Your task to perform on an android device: Empty the shopping cart on amazon. Add "logitech g pro" to the cart on amazon, then select checkout. Image 0: 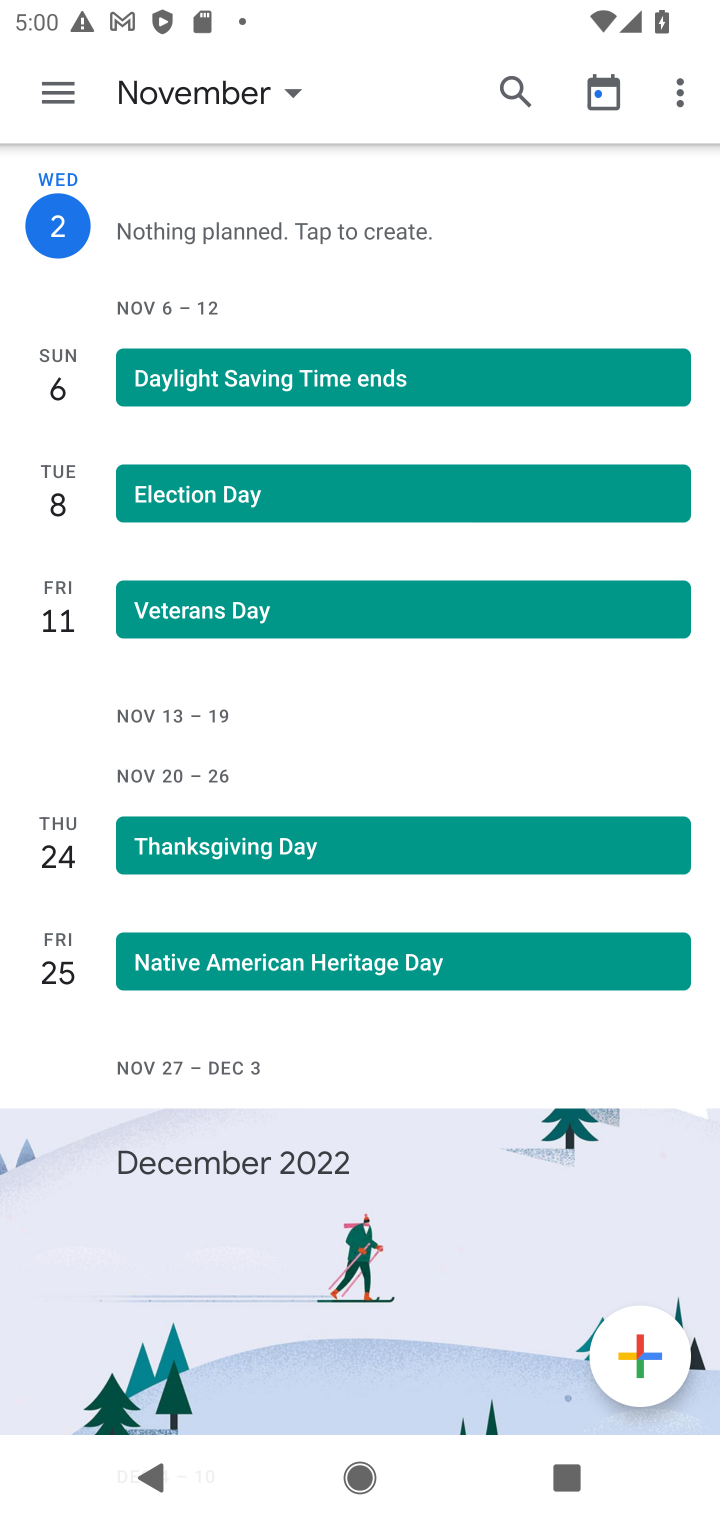
Step 0: press home button
Your task to perform on an android device: Empty the shopping cart on amazon. Add "logitech g pro" to the cart on amazon, then select checkout. Image 1: 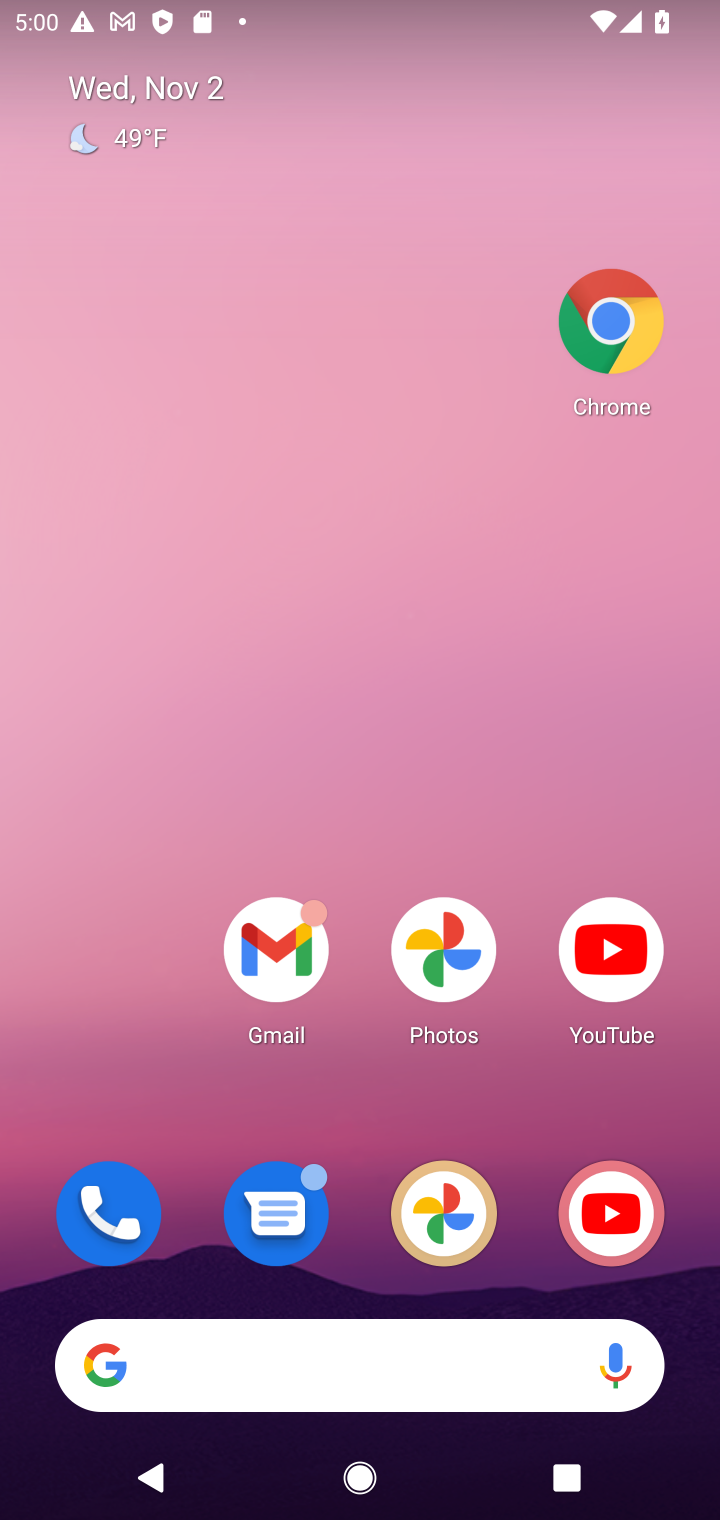
Step 1: drag from (502, 691) to (570, 366)
Your task to perform on an android device: Empty the shopping cart on amazon. Add "logitech g pro" to the cart on amazon, then select checkout. Image 2: 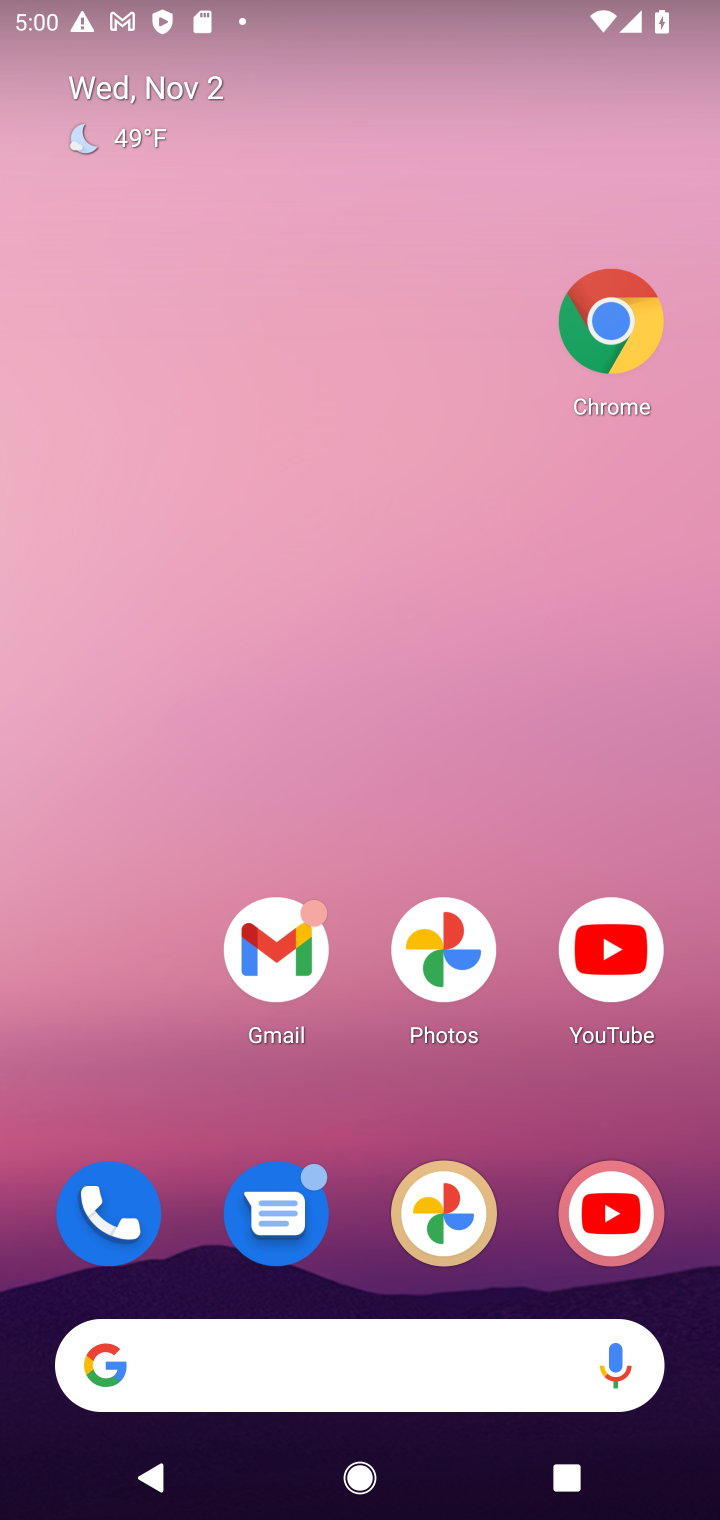
Step 2: drag from (343, 1061) to (429, 146)
Your task to perform on an android device: Empty the shopping cart on amazon. Add "logitech g pro" to the cart on amazon, then select checkout. Image 3: 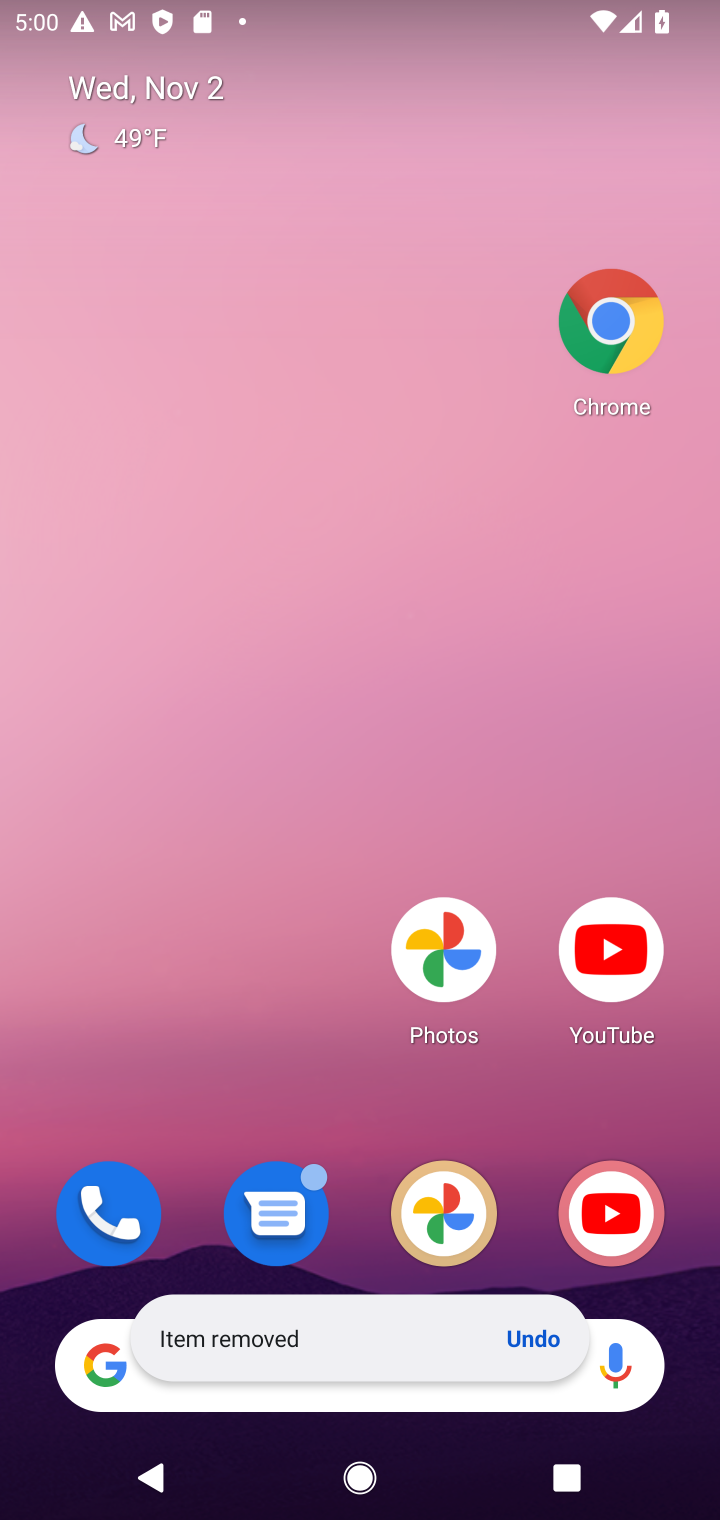
Step 3: drag from (277, 1069) to (373, 4)
Your task to perform on an android device: Empty the shopping cart on amazon. Add "logitech g pro" to the cart on amazon, then select checkout. Image 4: 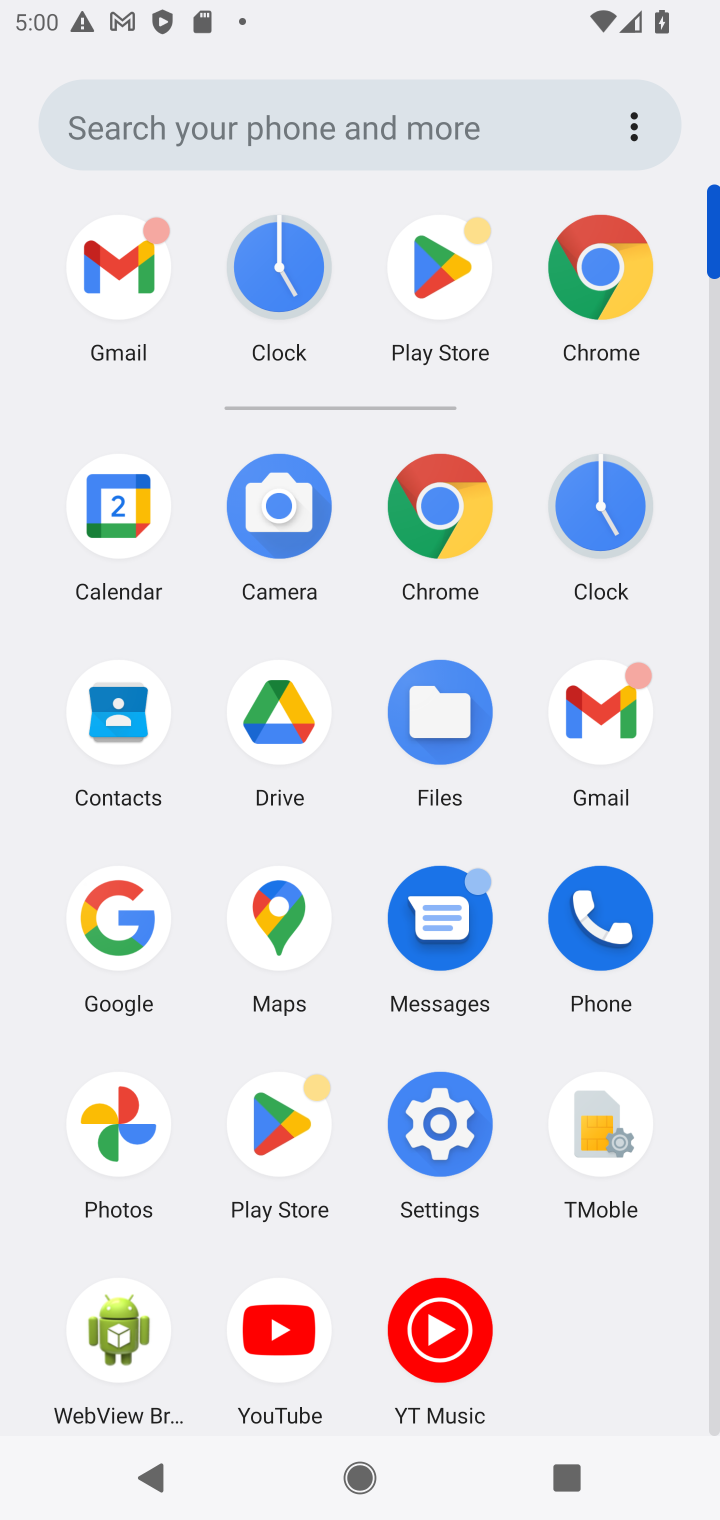
Step 4: click (130, 946)
Your task to perform on an android device: Empty the shopping cart on amazon. Add "logitech g pro" to the cart on amazon, then select checkout. Image 5: 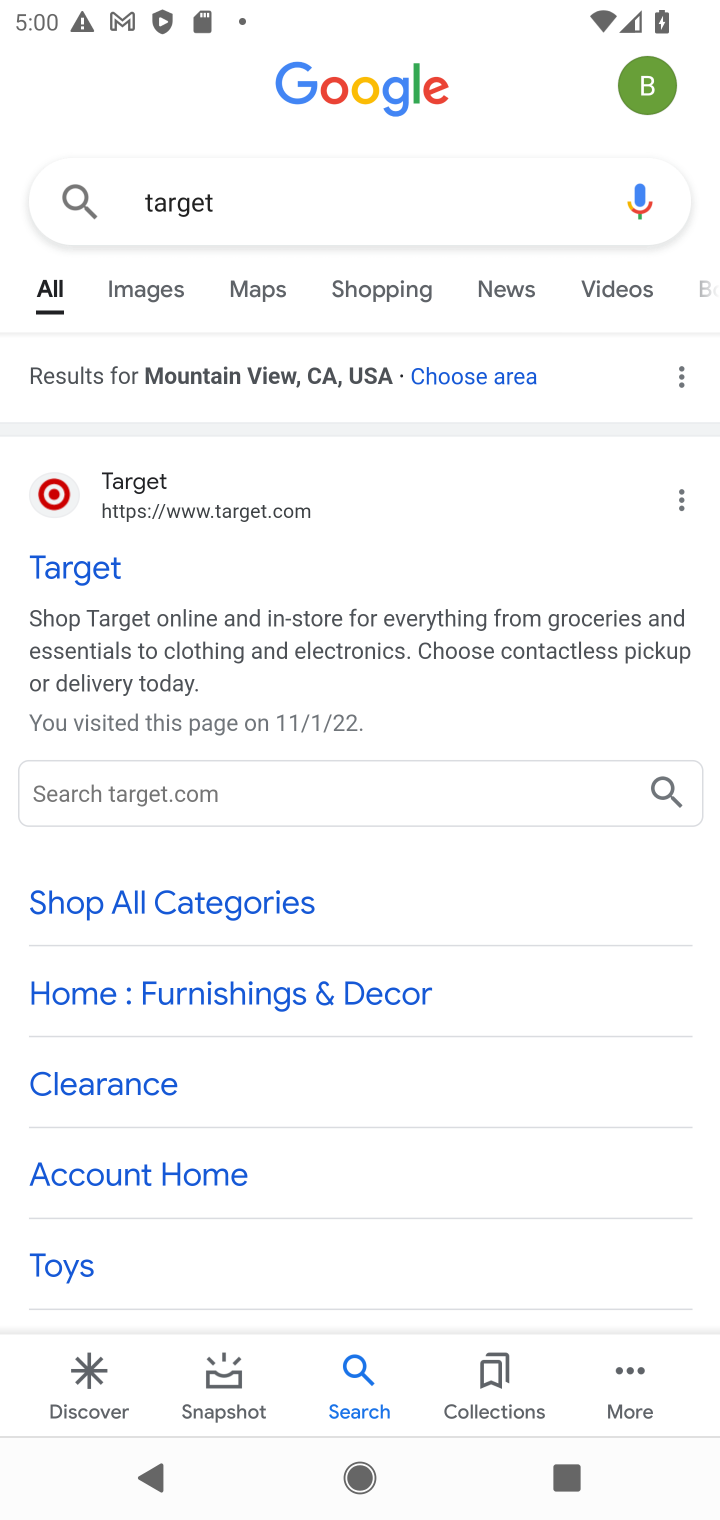
Step 5: click (406, 225)
Your task to perform on an android device: Empty the shopping cart on amazon. Add "logitech g pro" to the cart on amazon, then select checkout. Image 6: 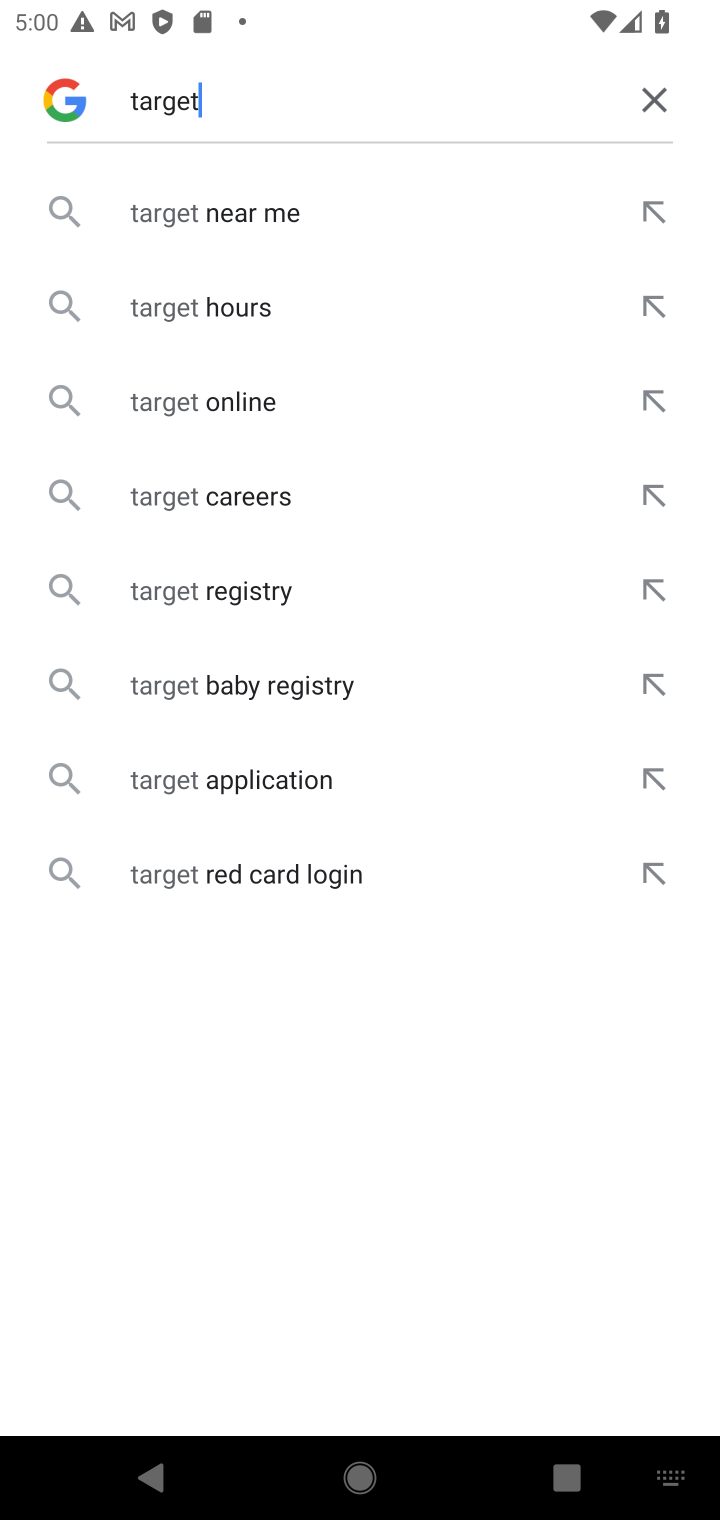
Step 6: click (651, 112)
Your task to perform on an android device: Empty the shopping cart on amazon. Add "logitech g pro" to the cart on amazon, then select checkout. Image 7: 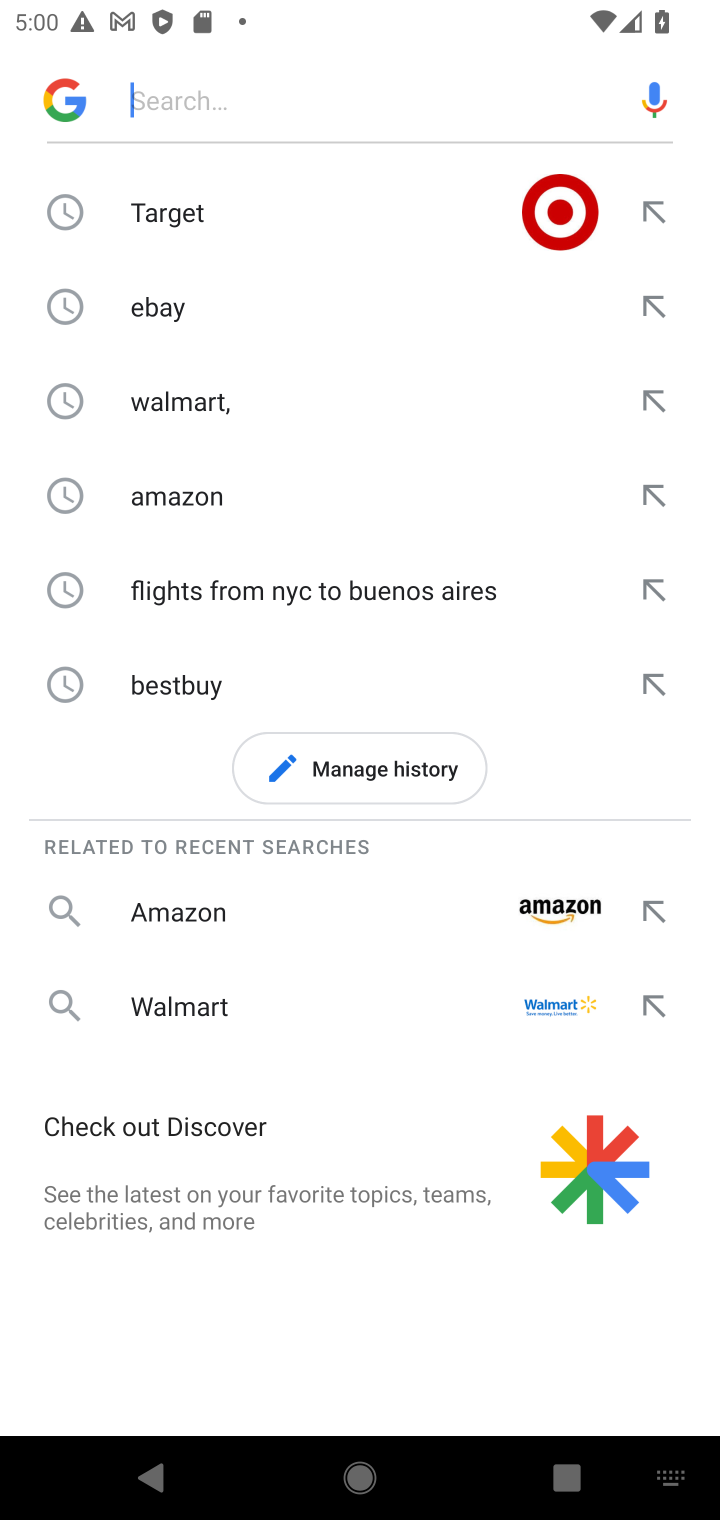
Step 7: type "amazon"
Your task to perform on an android device: Empty the shopping cart on amazon. Add "logitech g pro" to the cart on amazon, then select checkout. Image 8: 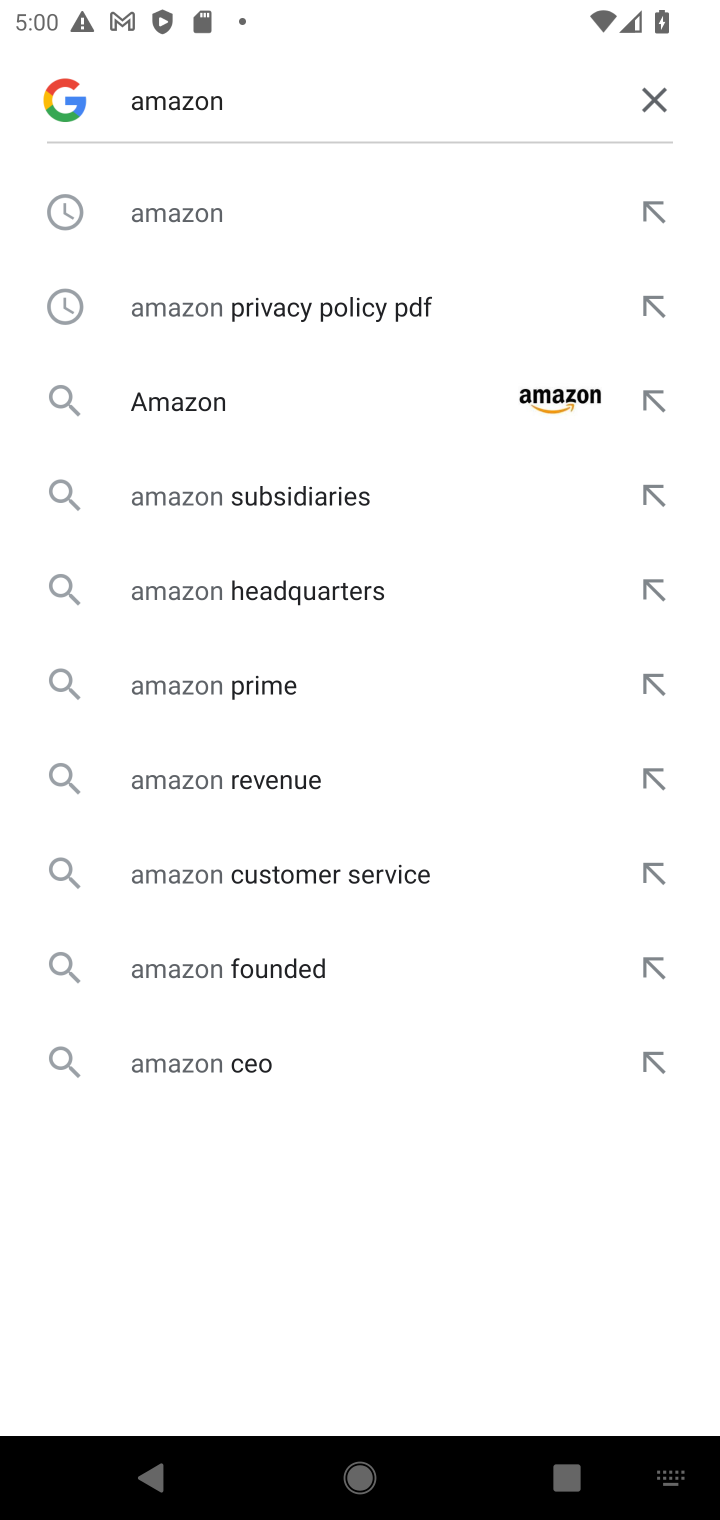
Step 8: click (212, 214)
Your task to perform on an android device: Empty the shopping cart on amazon. Add "logitech g pro" to the cart on amazon, then select checkout. Image 9: 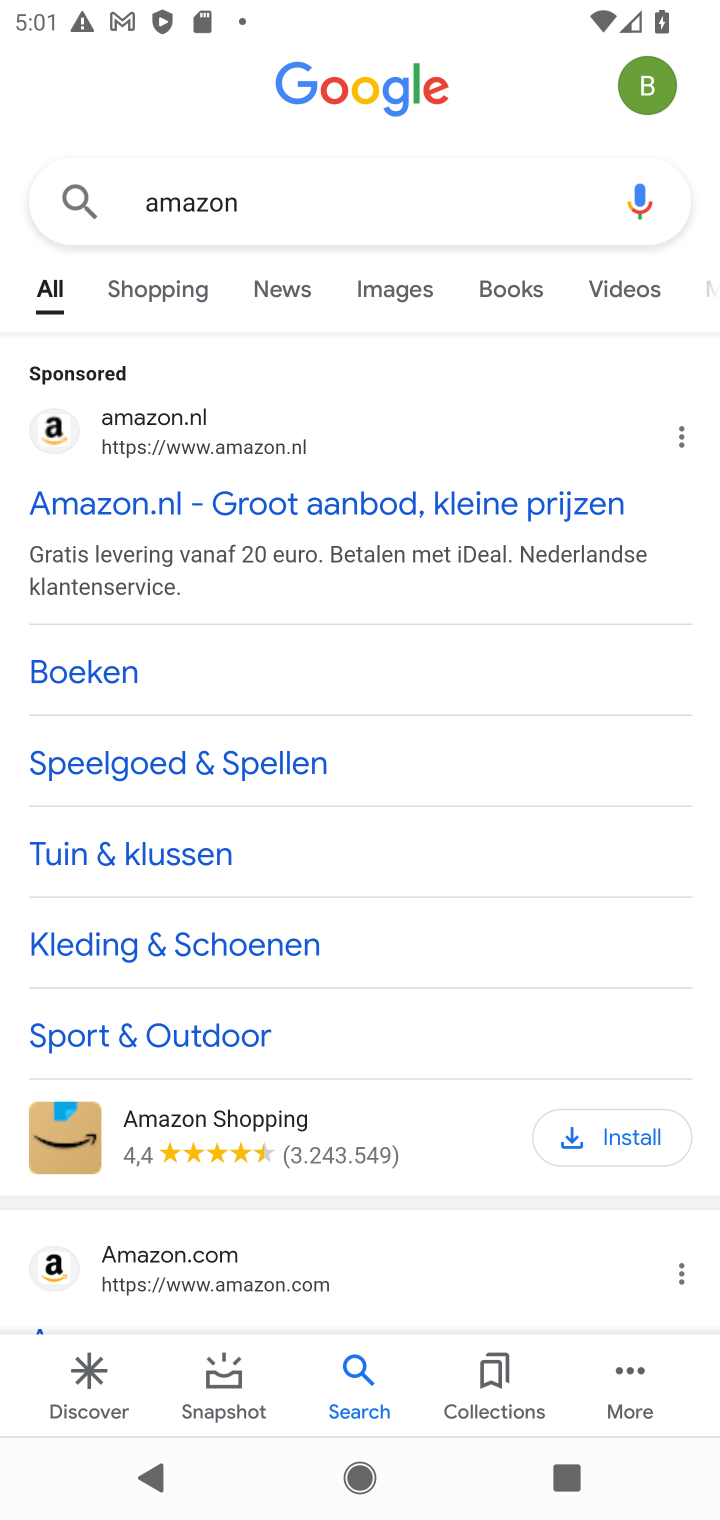
Step 9: click (296, 506)
Your task to perform on an android device: Empty the shopping cart on amazon. Add "logitech g pro" to the cart on amazon, then select checkout. Image 10: 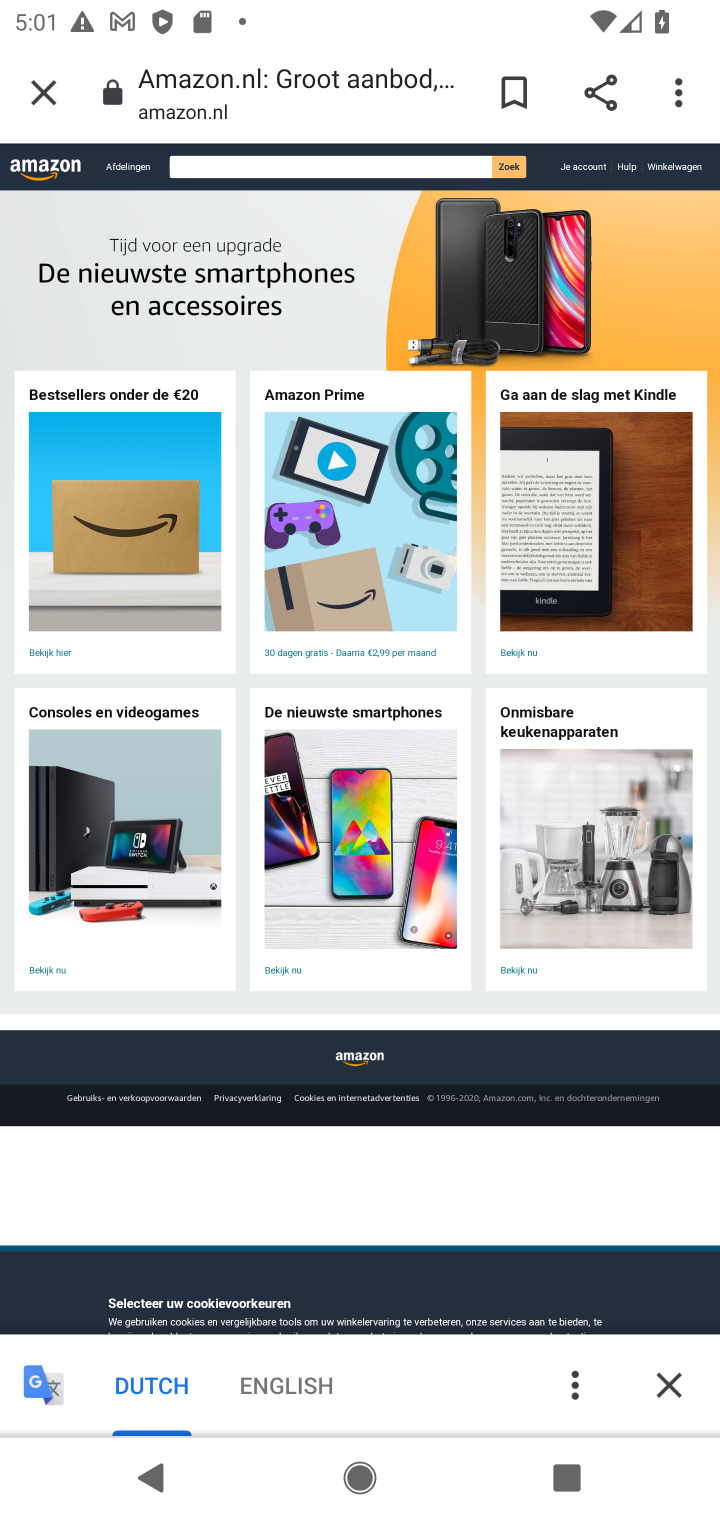
Step 10: click (347, 172)
Your task to perform on an android device: Empty the shopping cart on amazon. Add "logitech g pro" to the cart on amazon, then select checkout. Image 11: 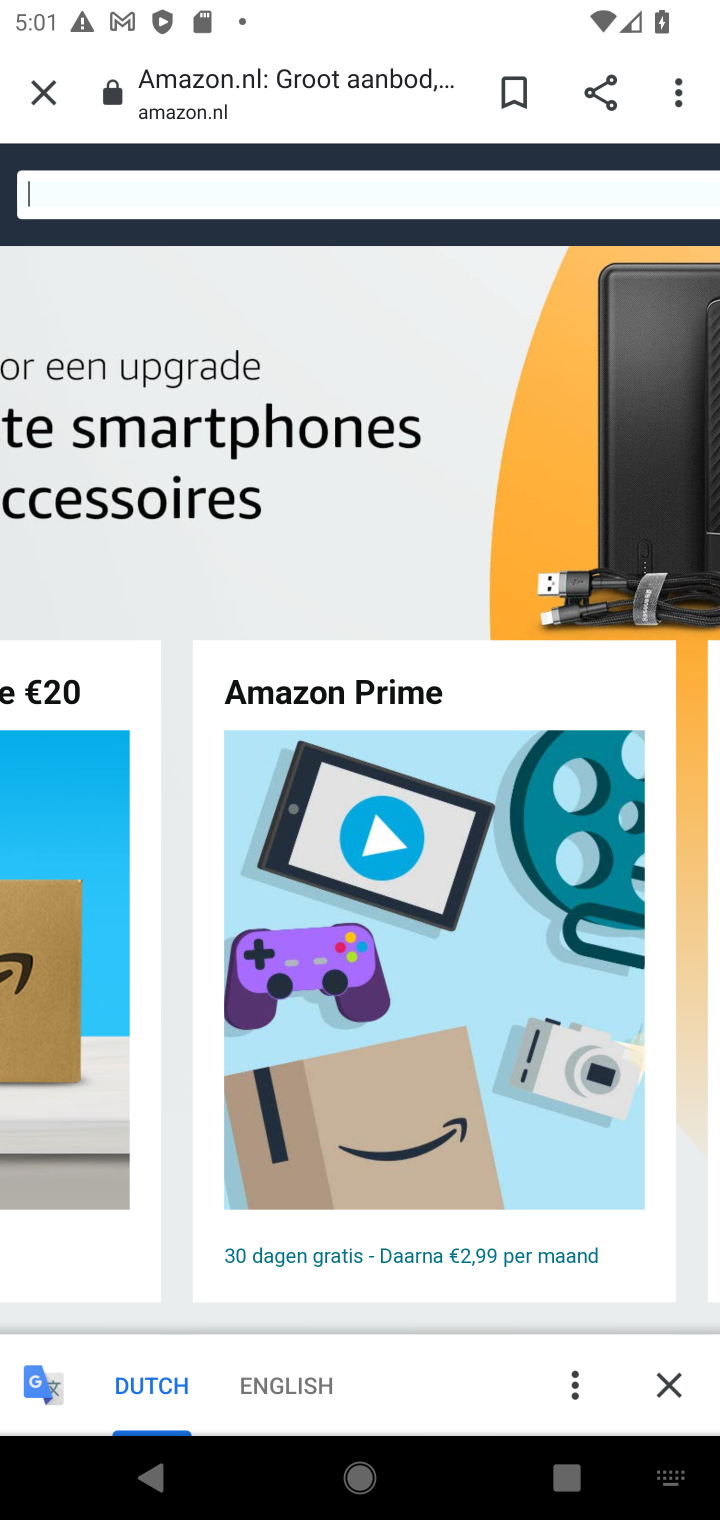
Step 11: type "logitech g pro"
Your task to perform on an android device: Empty the shopping cart on amazon. Add "logitech g pro" to the cart on amazon, then select checkout. Image 12: 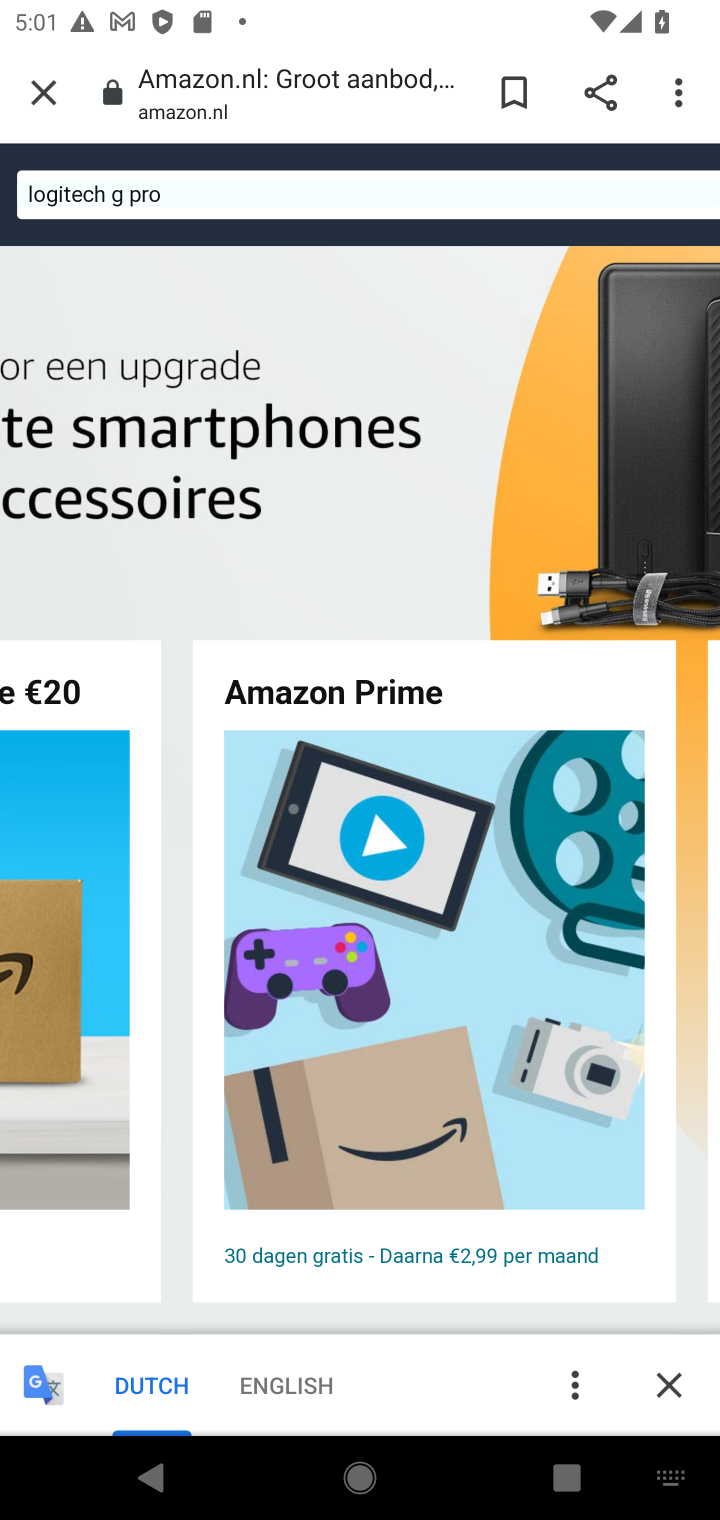
Step 12: drag from (455, 358) to (128, 373)
Your task to perform on an android device: Empty the shopping cart on amazon. Add "logitech g pro" to the cart on amazon, then select checkout. Image 13: 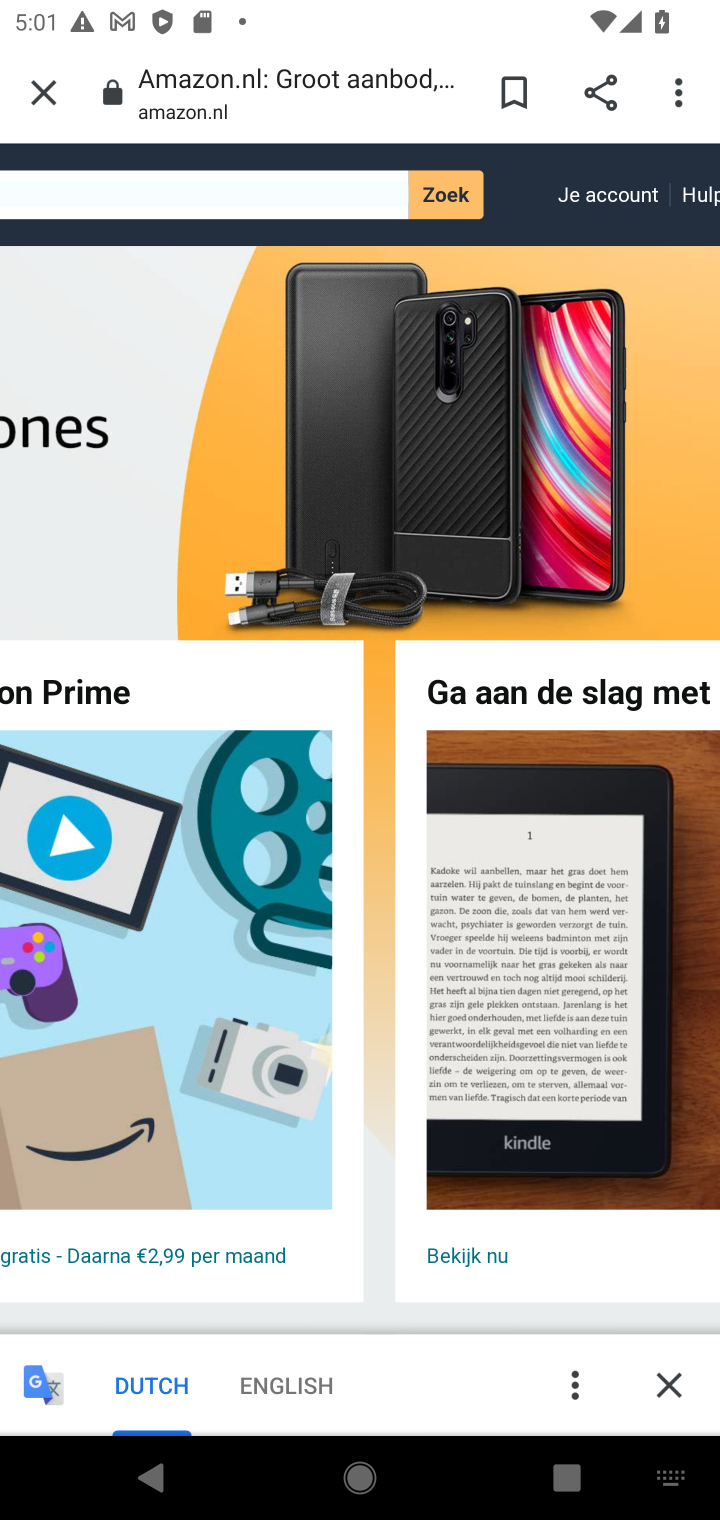
Step 13: click (440, 192)
Your task to perform on an android device: Empty the shopping cart on amazon. Add "logitech g pro" to the cart on amazon, then select checkout. Image 14: 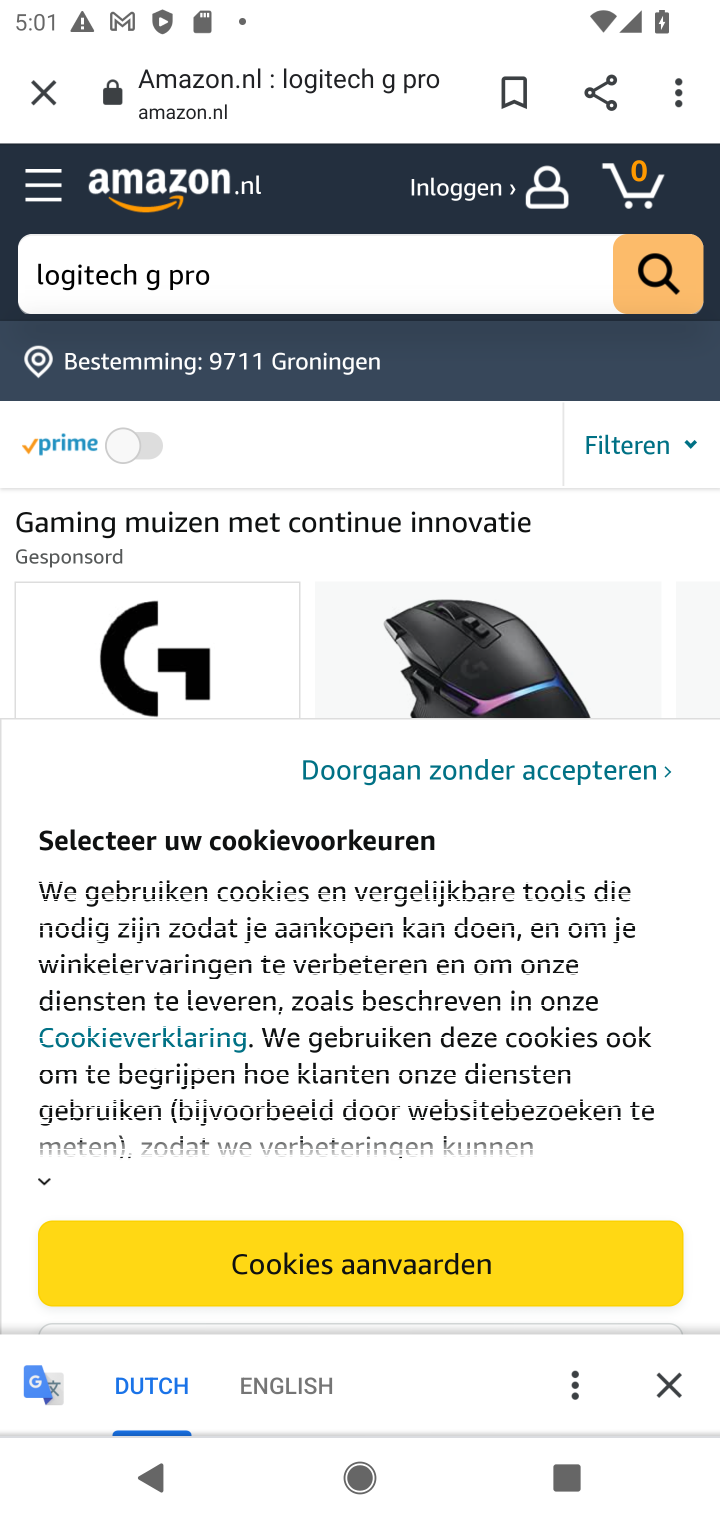
Step 14: drag from (373, 621) to (301, 244)
Your task to perform on an android device: Empty the shopping cart on amazon. Add "logitech g pro" to the cart on amazon, then select checkout. Image 15: 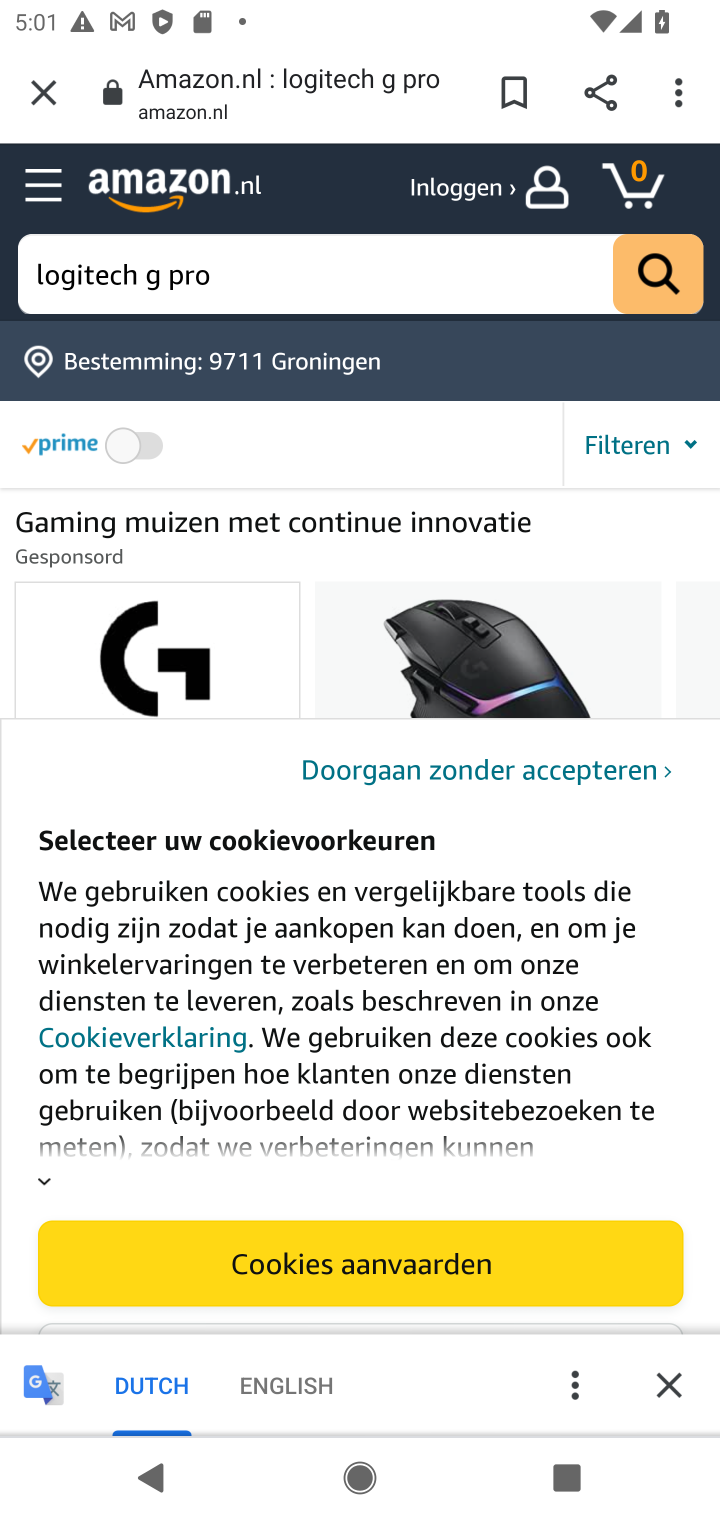
Step 15: click (679, 1391)
Your task to perform on an android device: Empty the shopping cart on amazon. Add "logitech g pro" to the cart on amazon, then select checkout. Image 16: 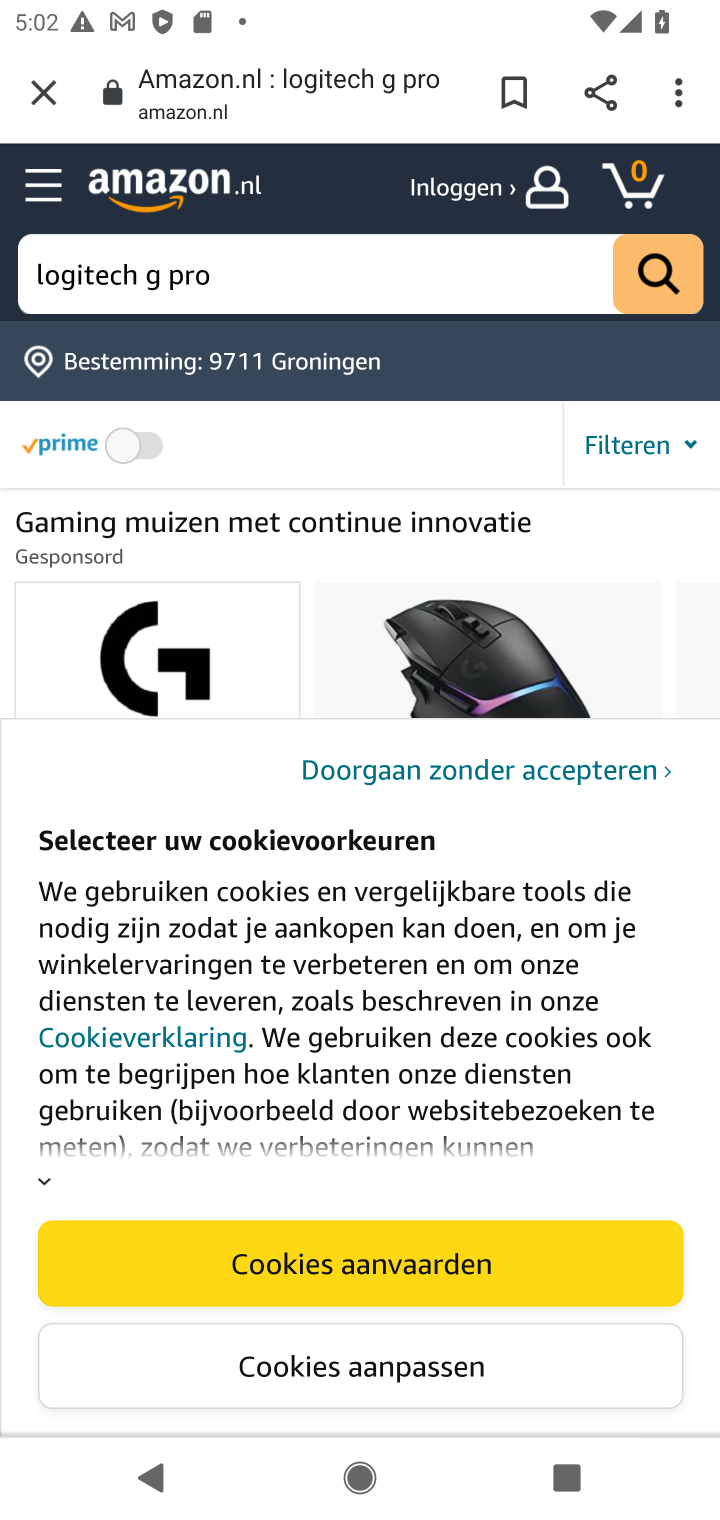
Step 16: click (518, 1273)
Your task to perform on an android device: Empty the shopping cart on amazon. Add "logitech g pro" to the cart on amazon, then select checkout. Image 17: 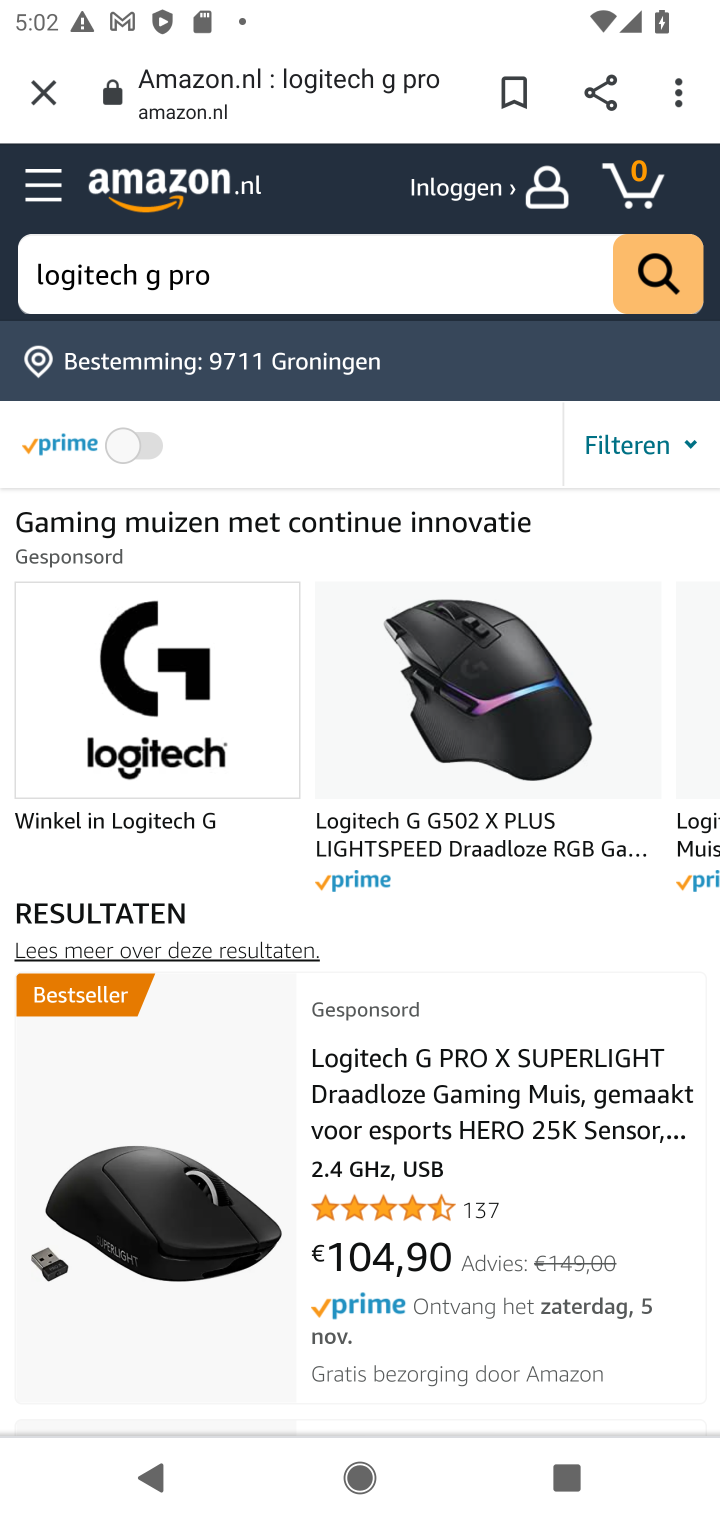
Step 17: click (366, 1097)
Your task to perform on an android device: Empty the shopping cart on amazon. Add "logitech g pro" to the cart on amazon, then select checkout. Image 18: 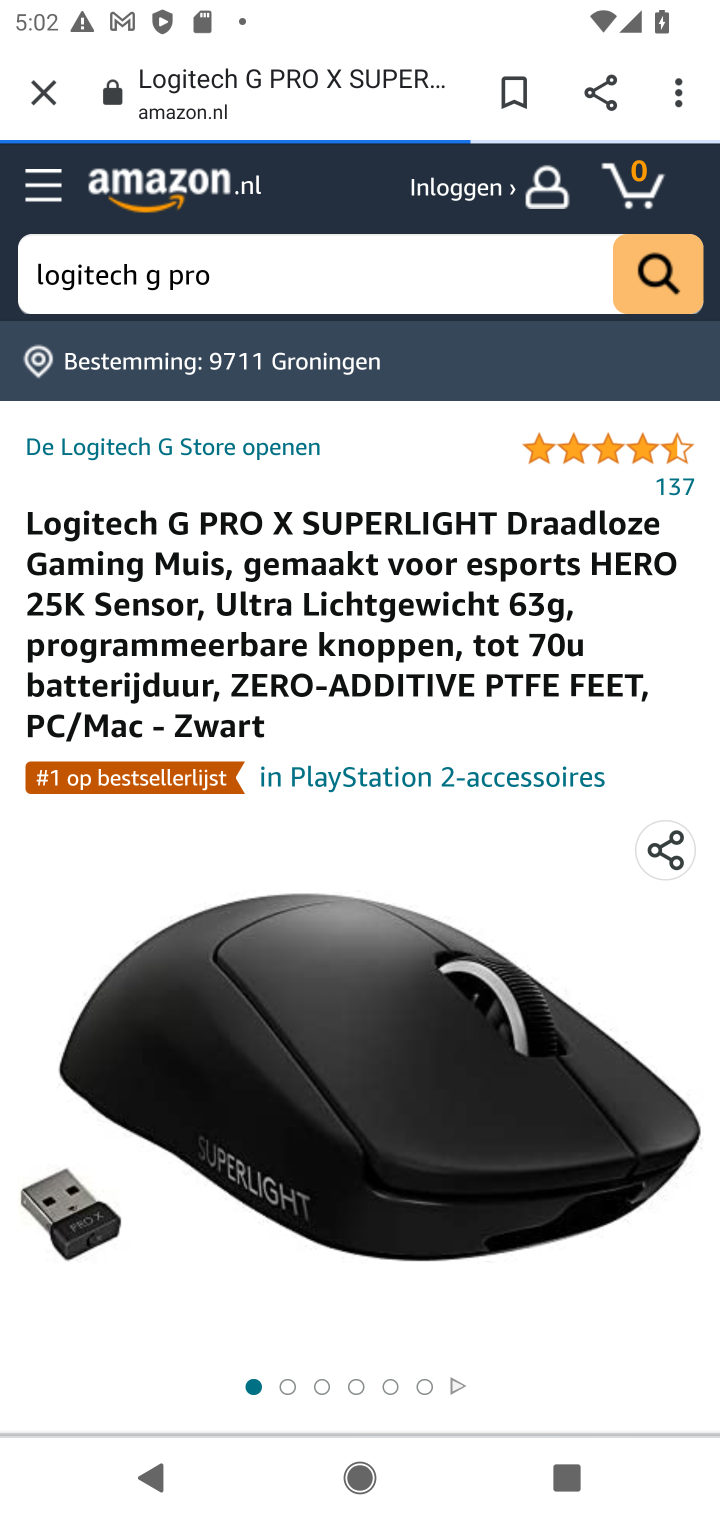
Step 18: drag from (386, 1187) to (271, 556)
Your task to perform on an android device: Empty the shopping cart on amazon. Add "logitech g pro" to the cart on amazon, then select checkout. Image 19: 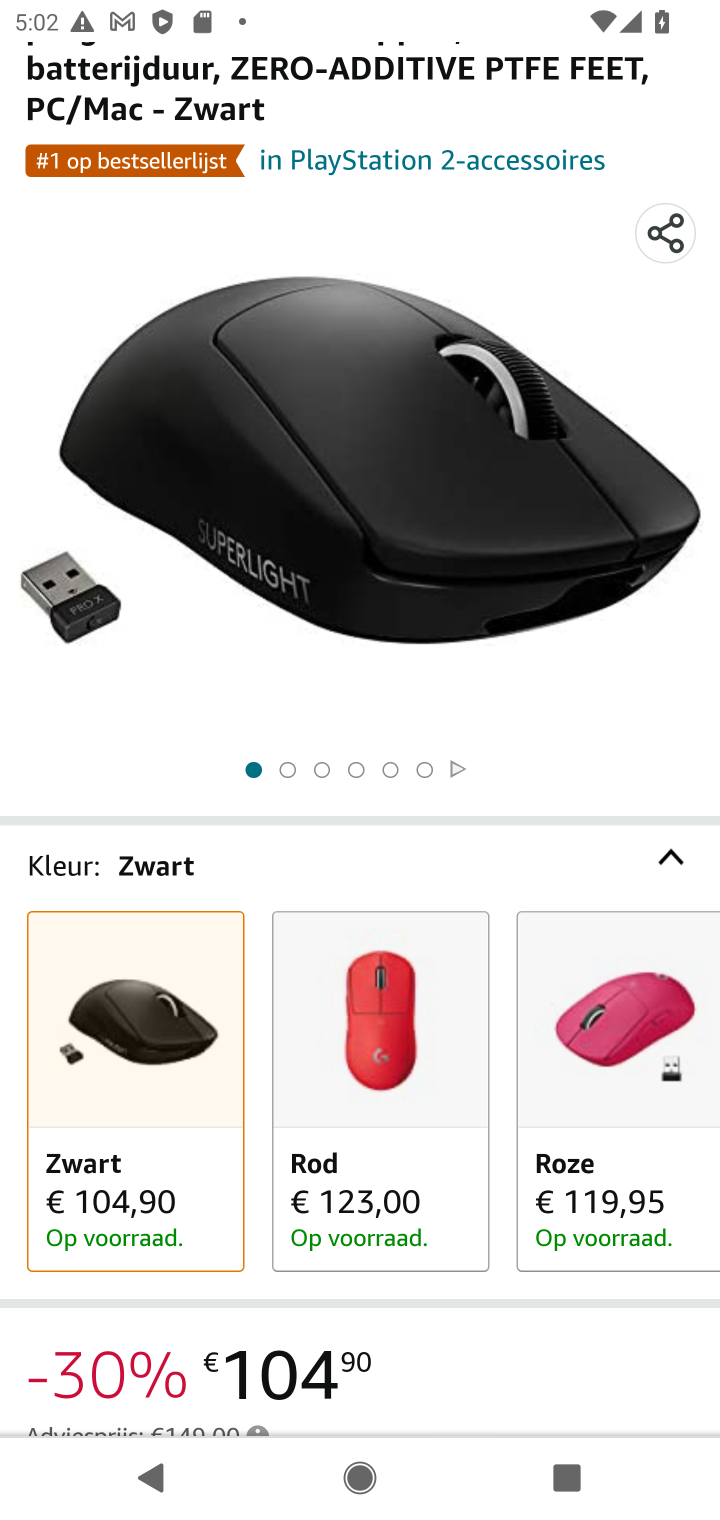
Step 19: drag from (269, 1164) to (269, 75)
Your task to perform on an android device: Empty the shopping cart on amazon. Add "logitech g pro" to the cart on amazon, then select checkout. Image 20: 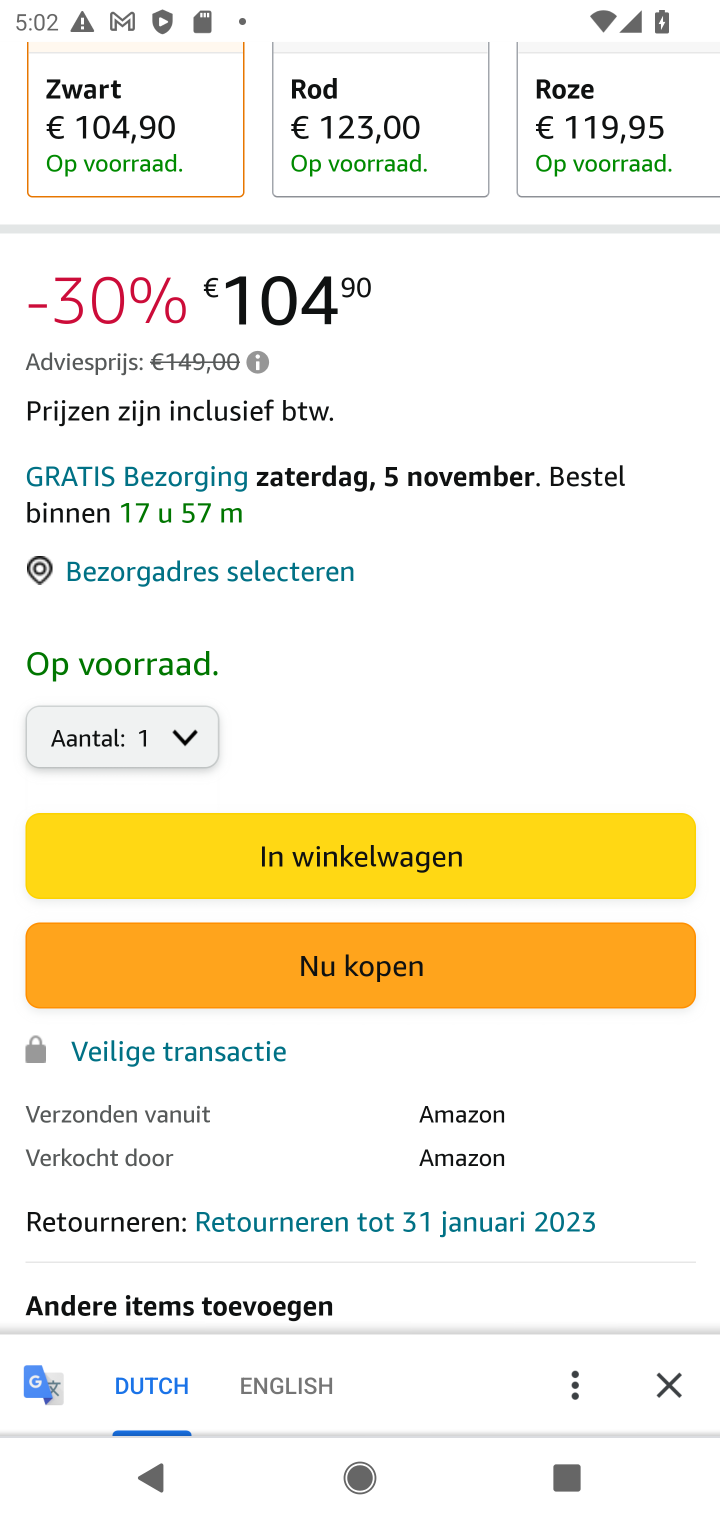
Step 20: click (384, 875)
Your task to perform on an android device: Empty the shopping cart on amazon. Add "logitech g pro" to the cart on amazon, then select checkout. Image 21: 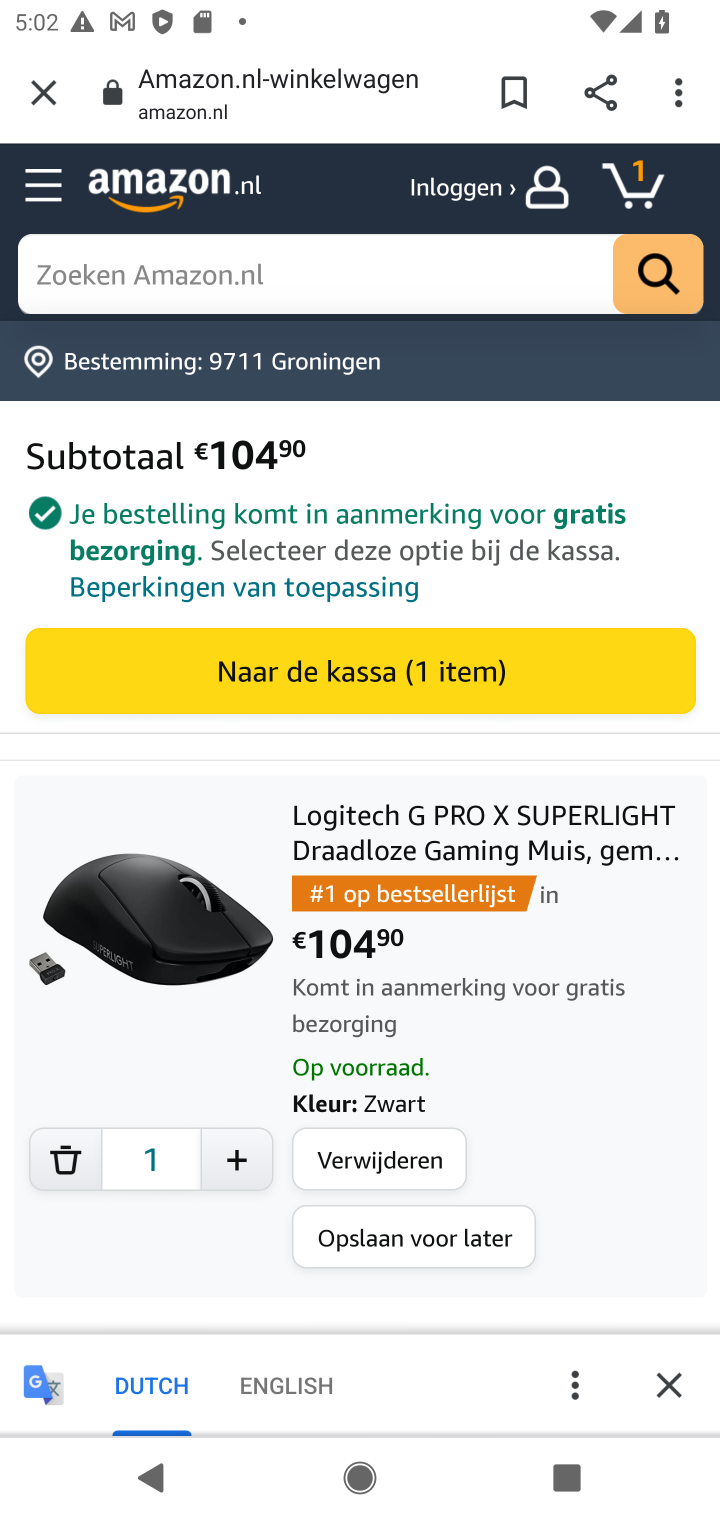
Step 21: click (635, 186)
Your task to perform on an android device: Empty the shopping cart on amazon. Add "logitech g pro" to the cart on amazon, then select checkout. Image 22: 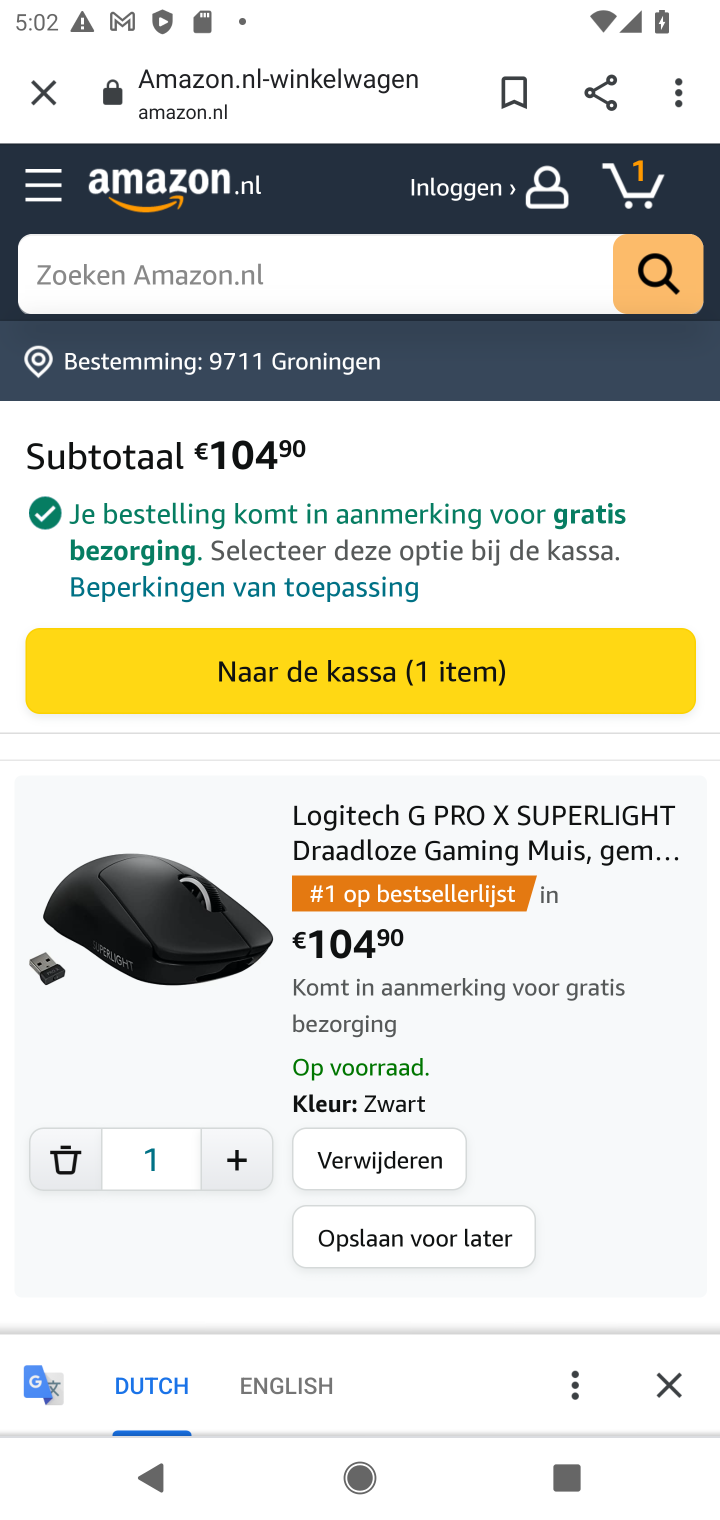
Step 22: click (503, 685)
Your task to perform on an android device: Empty the shopping cart on amazon. Add "logitech g pro" to the cart on amazon, then select checkout. Image 23: 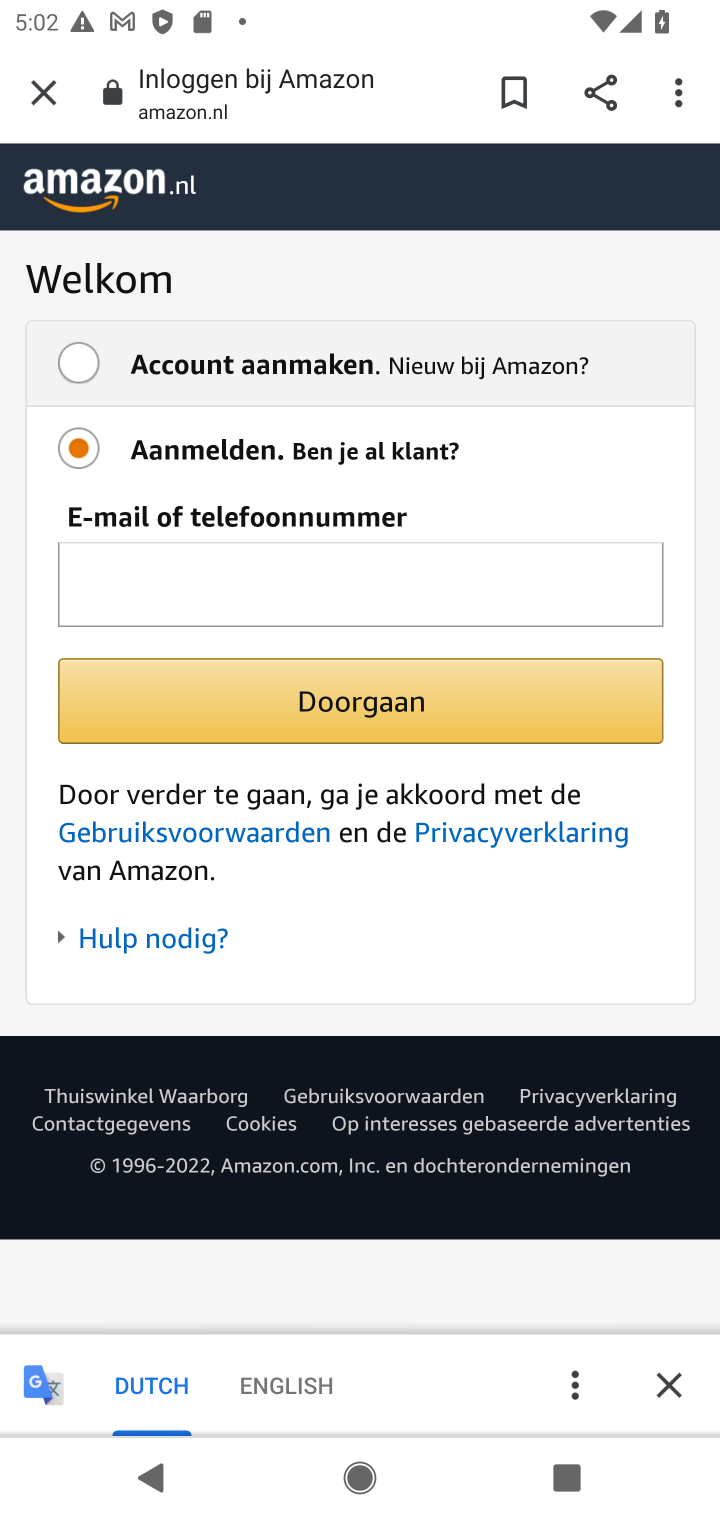
Step 23: task complete